Your task to perform on an android device: Do I have any events this weekend? Image 0: 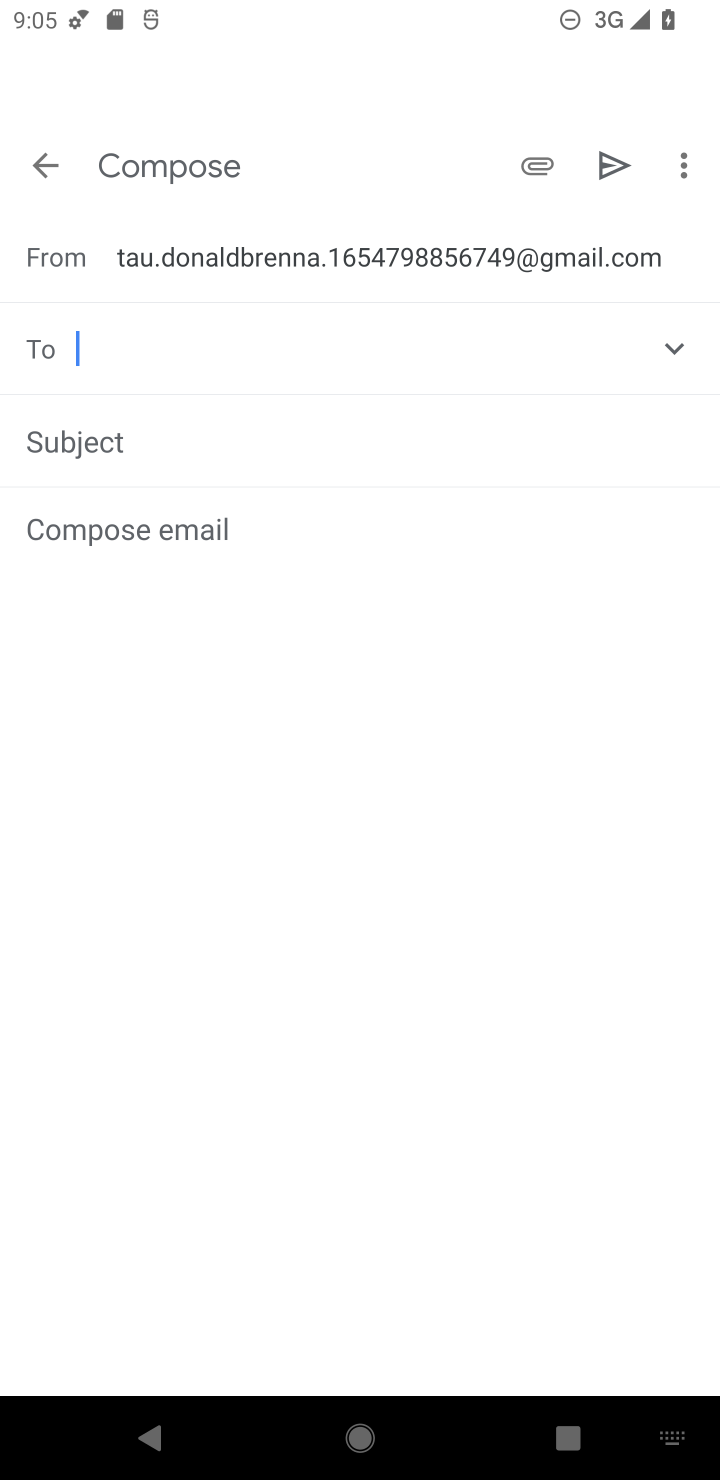
Step 0: press home button
Your task to perform on an android device: Do I have any events this weekend? Image 1: 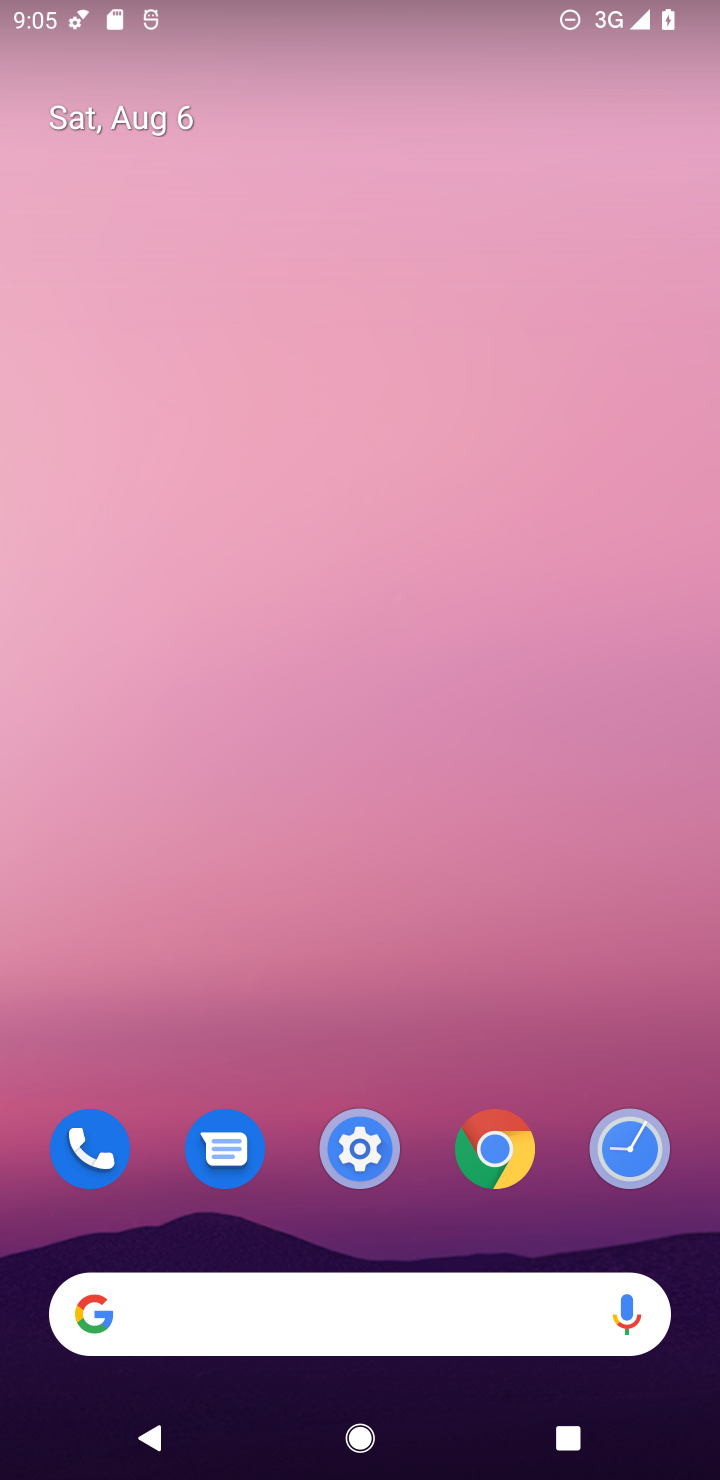
Step 1: drag from (375, 1177) to (389, 355)
Your task to perform on an android device: Do I have any events this weekend? Image 2: 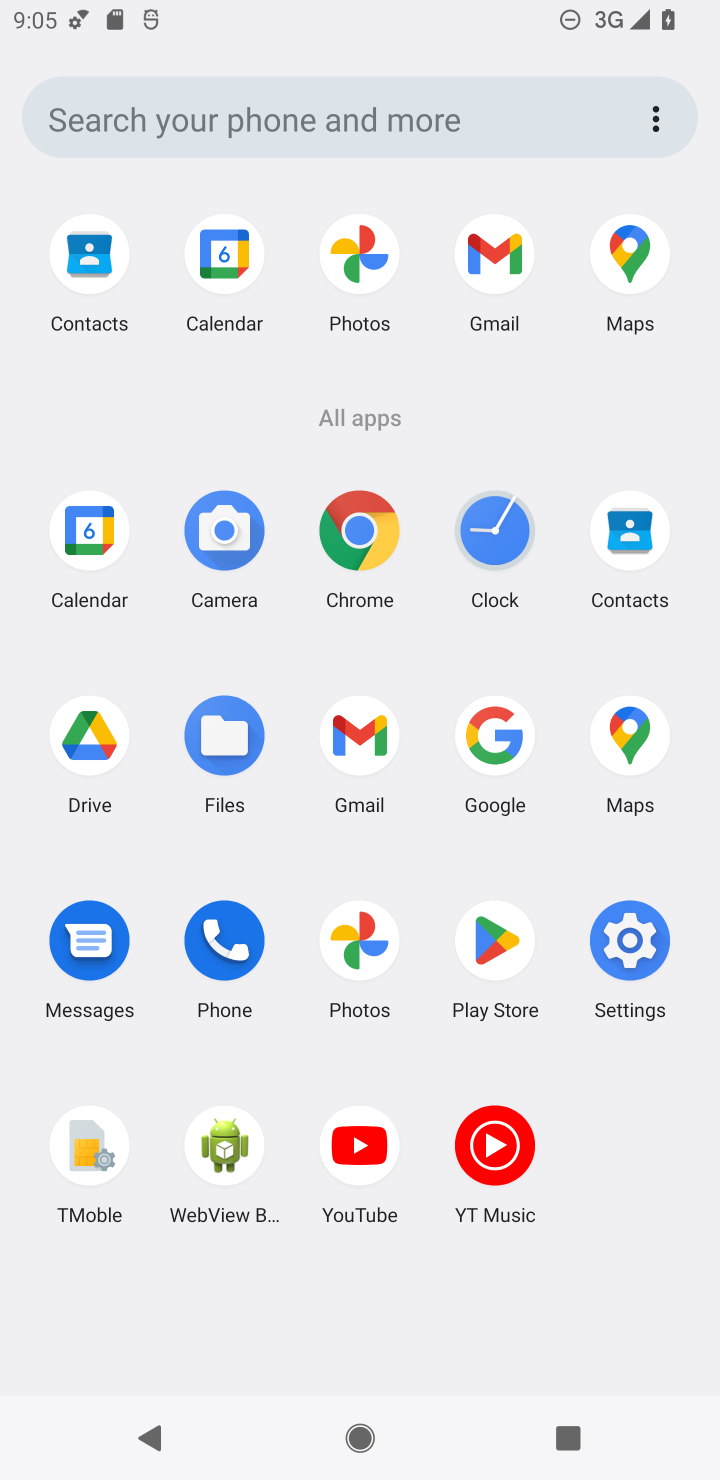
Step 2: click (71, 570)
Your task to perform on an android device: Do I have any events this weekend? Image 3: 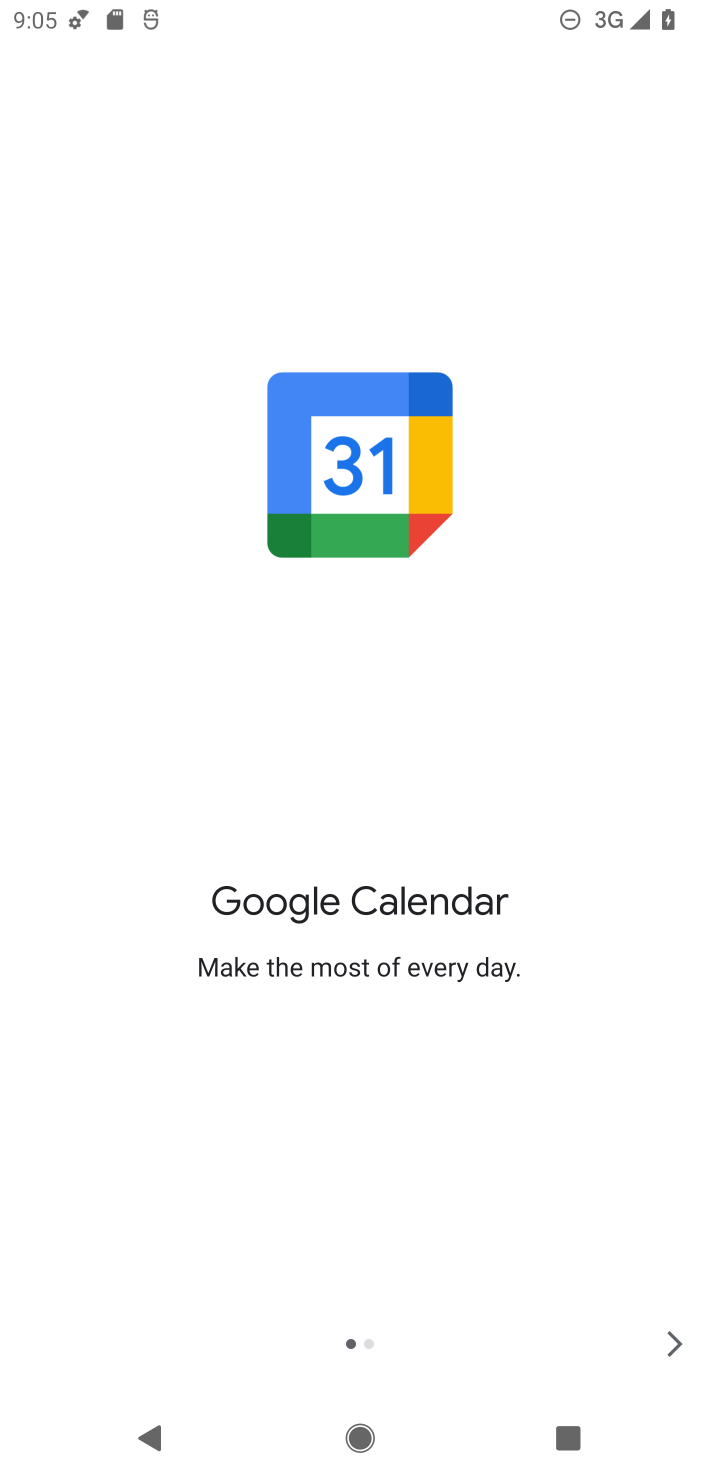
Step 3: click (663, 1364)
Your task to perform on an android device: Do I have any events this weekend? Image 4: 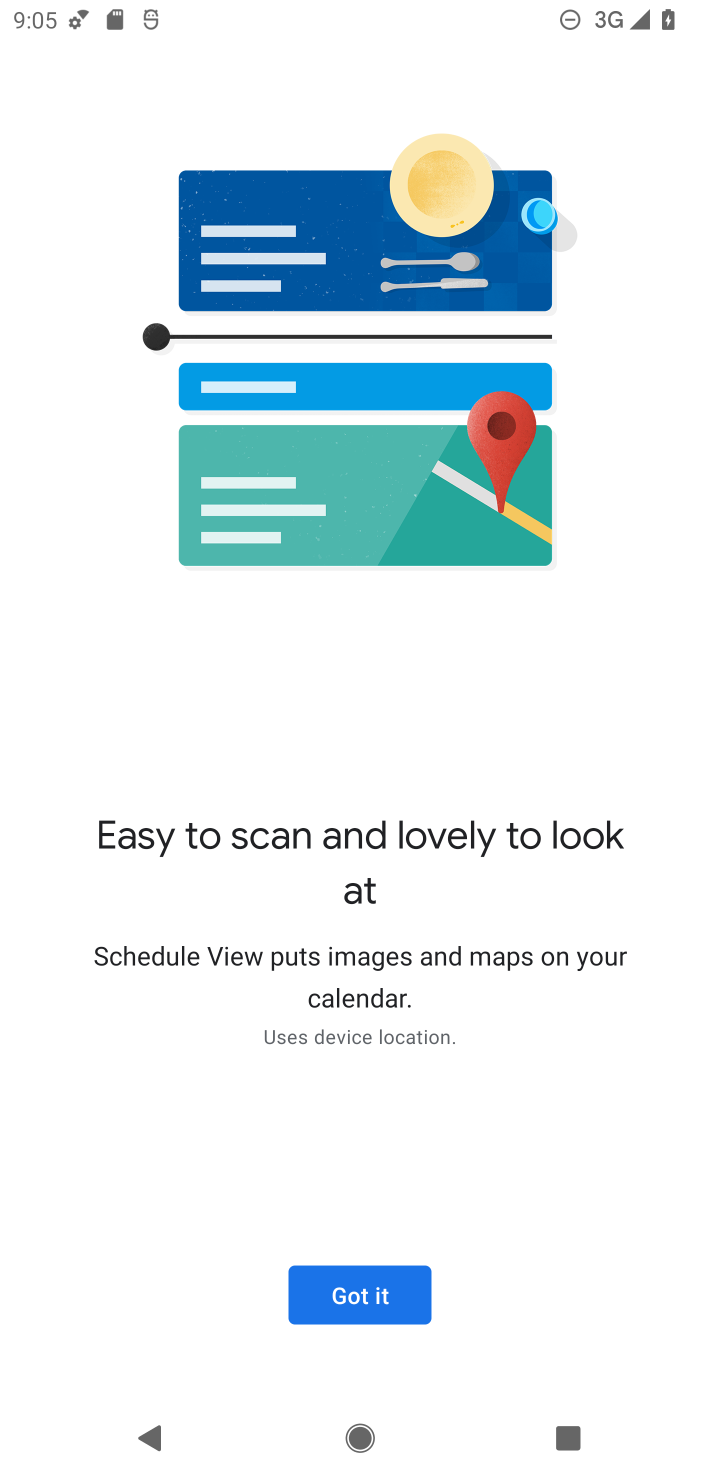
Step 4: click (407, 1277)
Your task to perform on an android device: Do I have any events this weekend? Image 5: 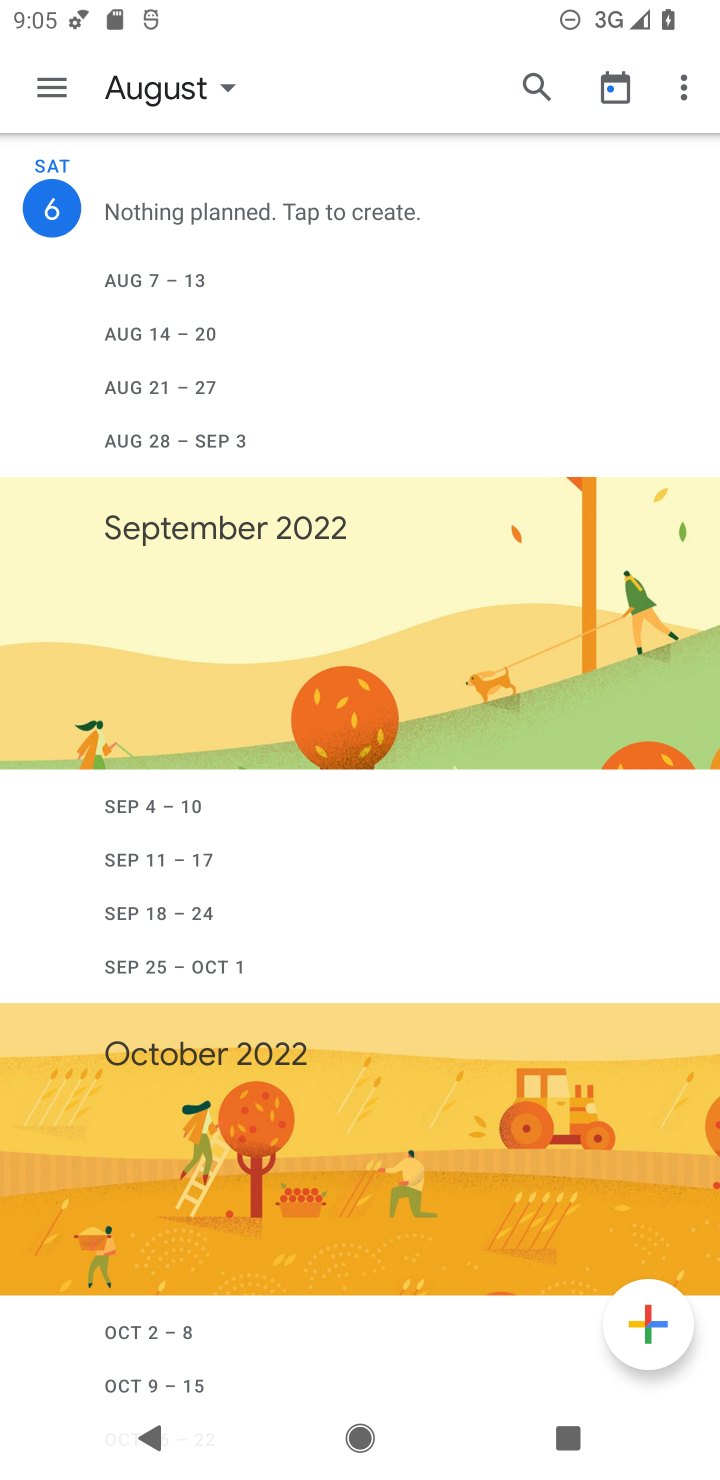
Step 5: click (53, 121)
Your task to perform on an android device: Do I have any events this weekend? Image 6: 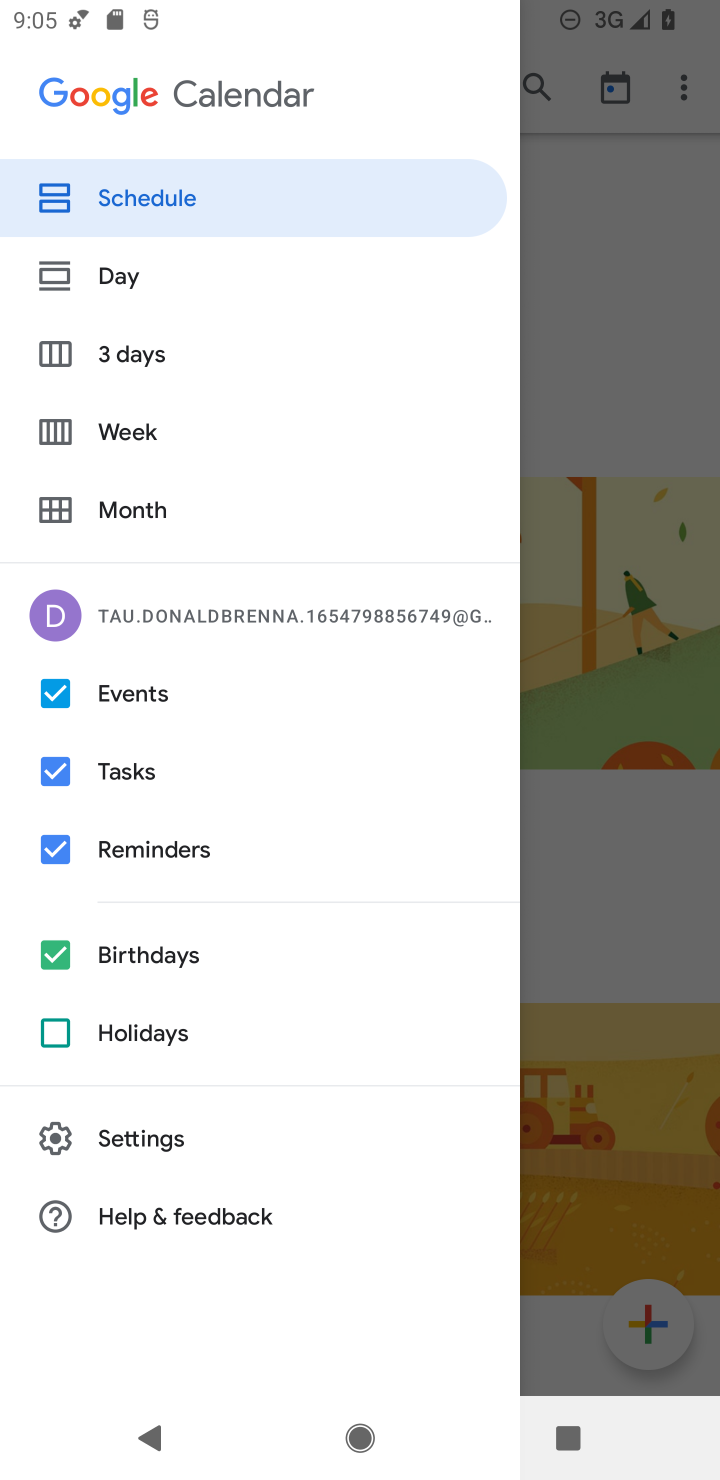
Step 6: click (134, 427)
Your task to perform on an android device: Do I have any events this weekend? Image 7: 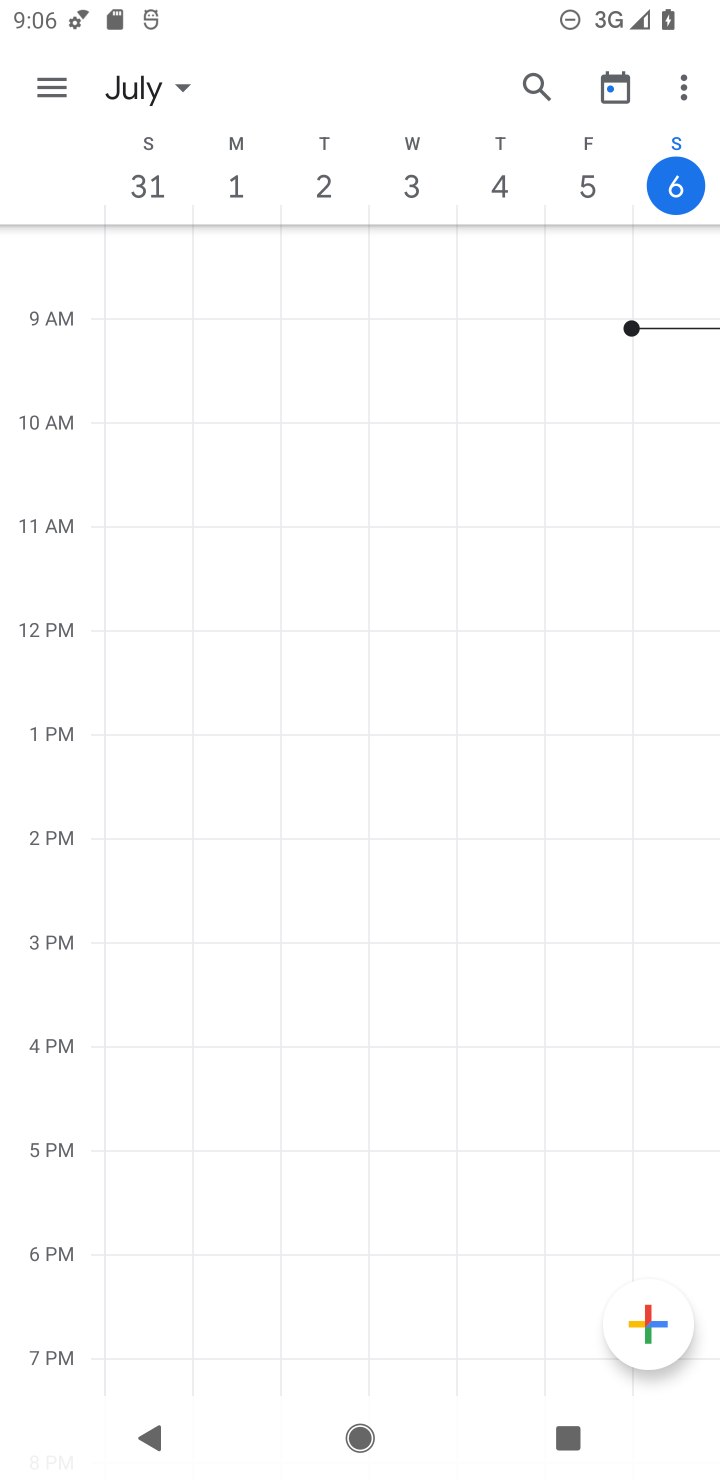
Step 7: task complete